Your task to perform on an android device: turn on the 12-hour format for clock Image 0: 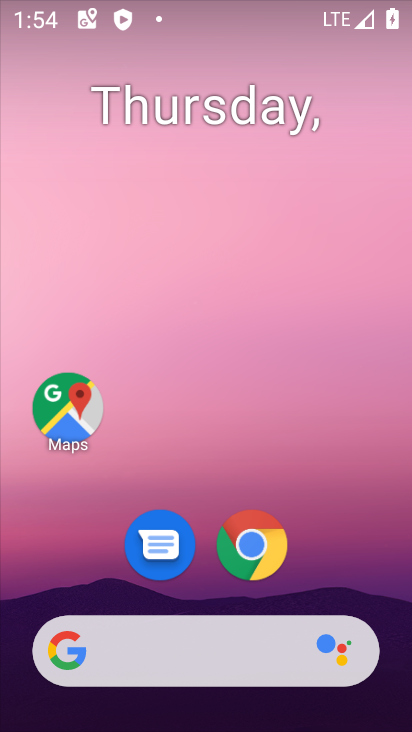
Step 0: drag from (89, 721) to (191, 121)
Your task to perform on an android device: turn on the 12-hour format for clock Image 1: 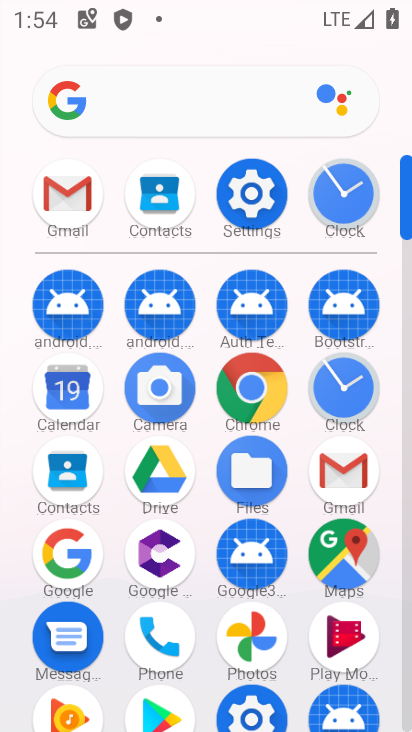
Step 1: click (338, 189)
Your task to perform on an android device: turn on the 12-hour format for clock Image 2: 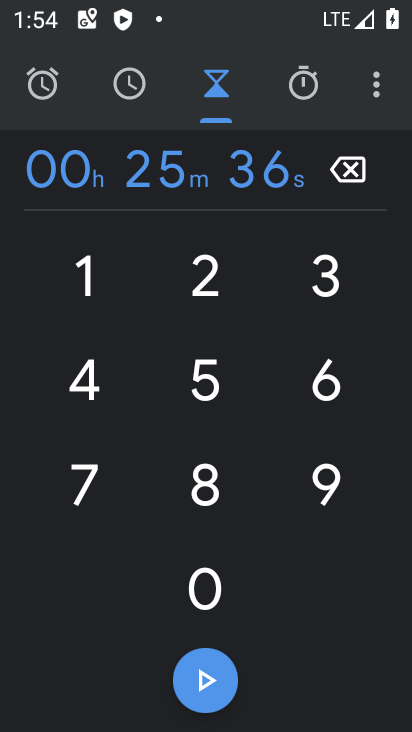
Step 2: click (369, 92)
Your task to perform on an android device: turn on the 12-hour format for clock Image 3: 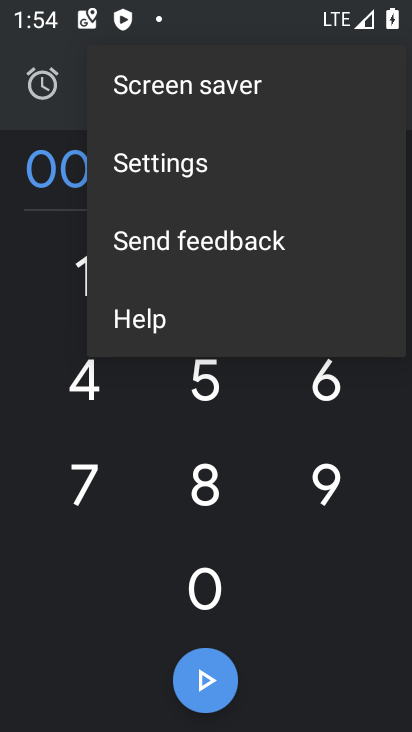
Step 3: click (165, 164)
Your task to perform on an android device: turn on the 12-hour format for clock Image 4: 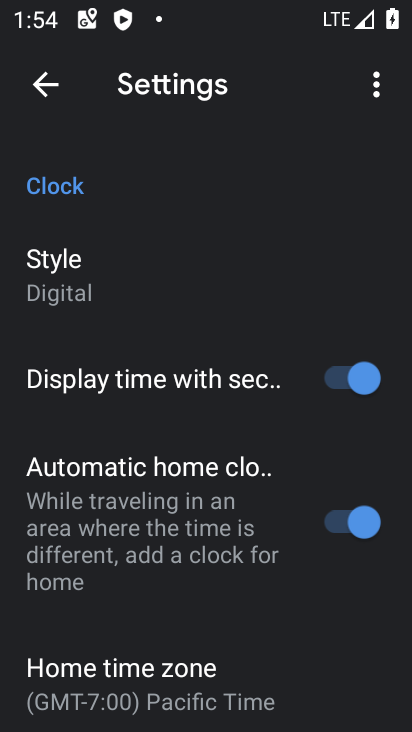
Step 4: drag from (244, 639) to (175, 163)
Your task to perform on an android device: turn on the 12-hour format for clock Image 5: 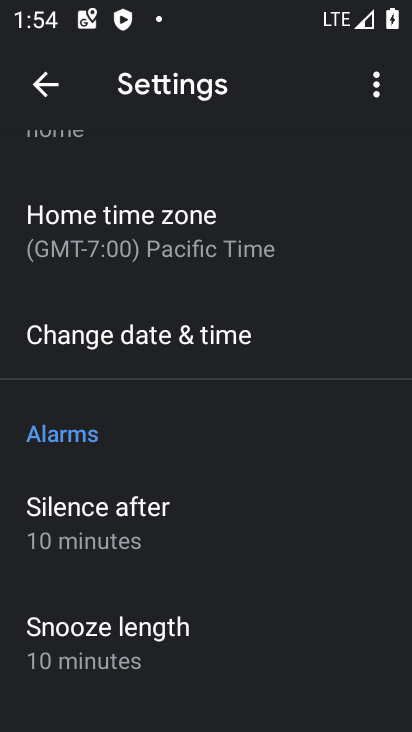
Step 5: click (241, 343)
Your task to perform on an android device: turn on the 12-hour format for clock Image 6: 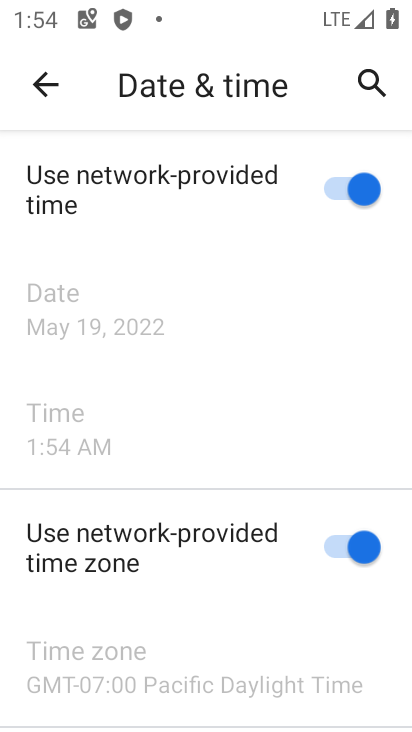
Step 6: task complete